Your task to perform on an android device: turn pop-ups on in chrome Image 0: 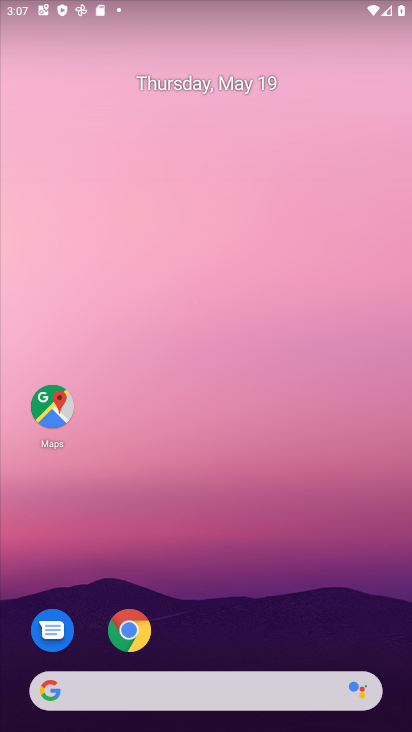
Step 0: click (124, 631)
Your task to perform on an android device: turn pop-ups on in chrome Image 1: 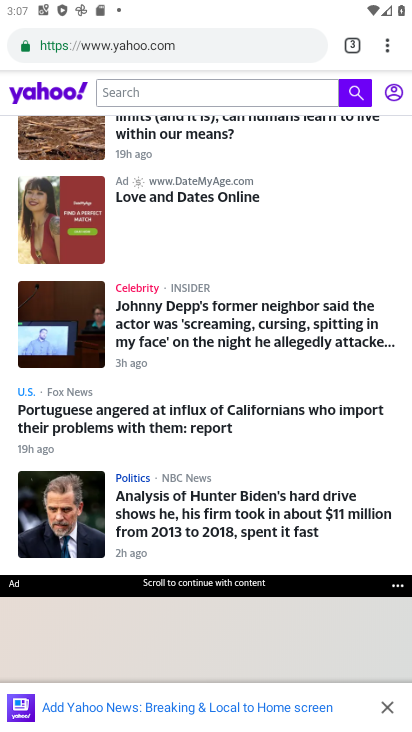
Step 1: click (385, 48)
Your task to perform on an android device: turn pop-ups on in chrome Image 2: 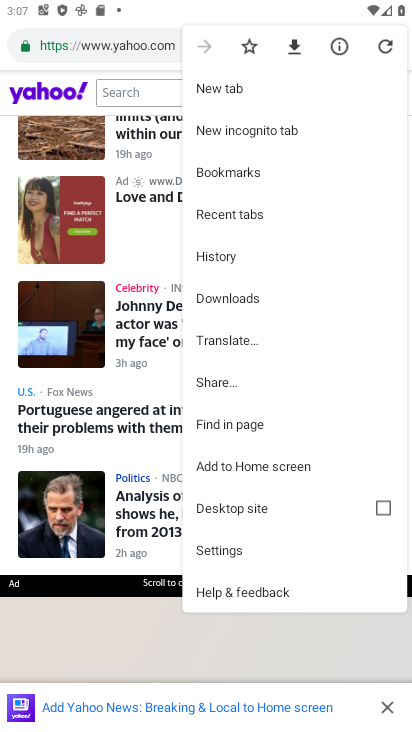
Step 2: click (233, 547)
Your task to perform on an android device: turn pop-ups on in chrome Image 3: 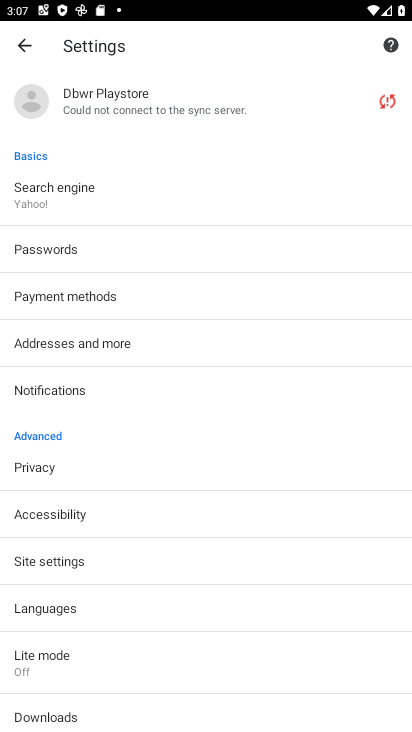
Step 3: click (63, 556)
Your task to perform on an android device: turn pop-ups on in chrome Image 4: 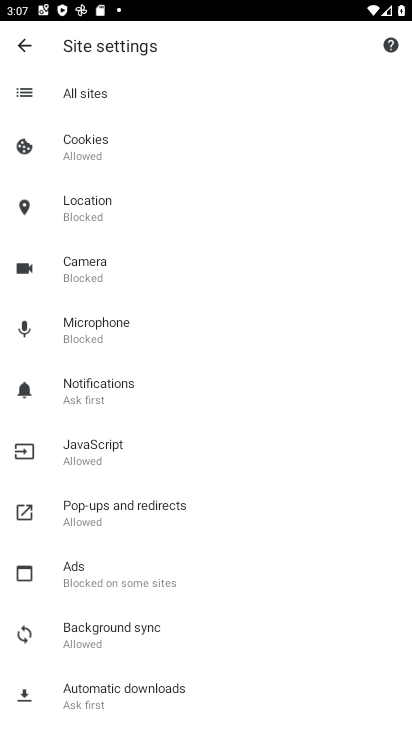
Step 4: click (103, 504)
Your task to perform on an android device: turn pop-ups on in chrome Image 5: 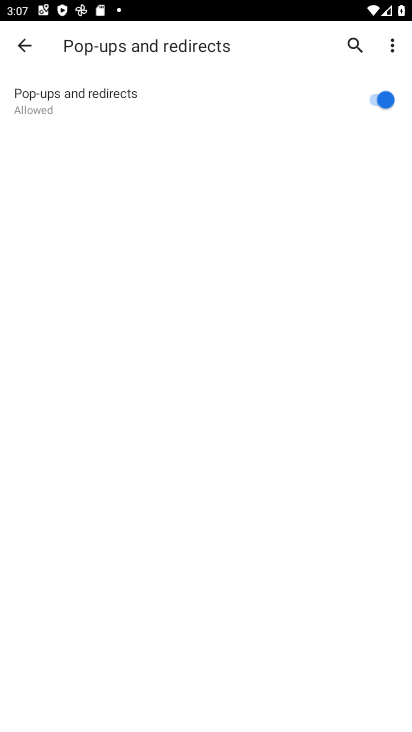
Step 5: task complete